Your task to perform on an android device: uninstall "Firefox Browser" Image 0: 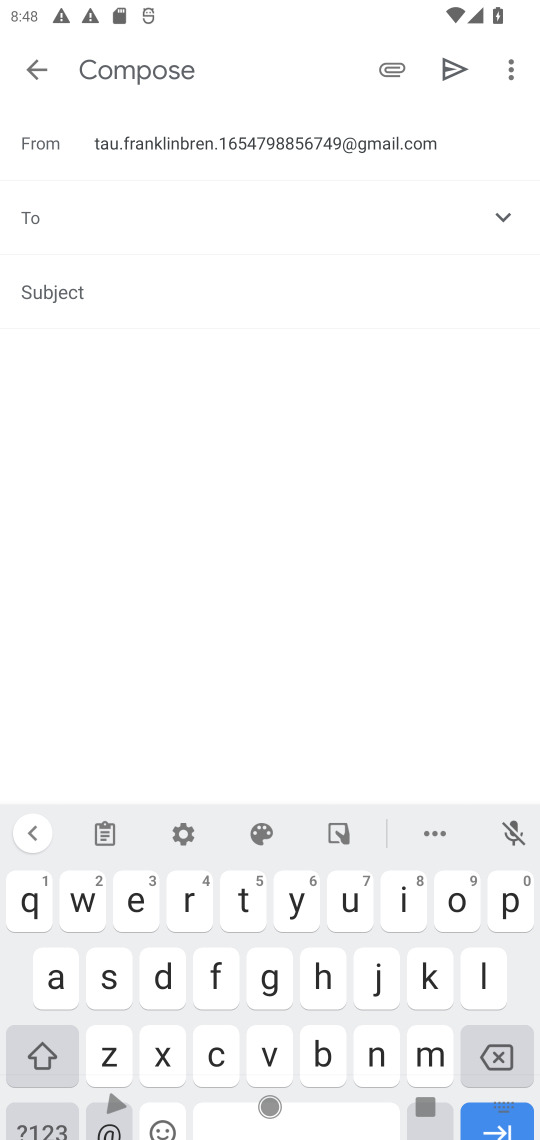
Step 0: press home button
Your task to perform on an android device: uninstall "Firefox Browser" Image 1: 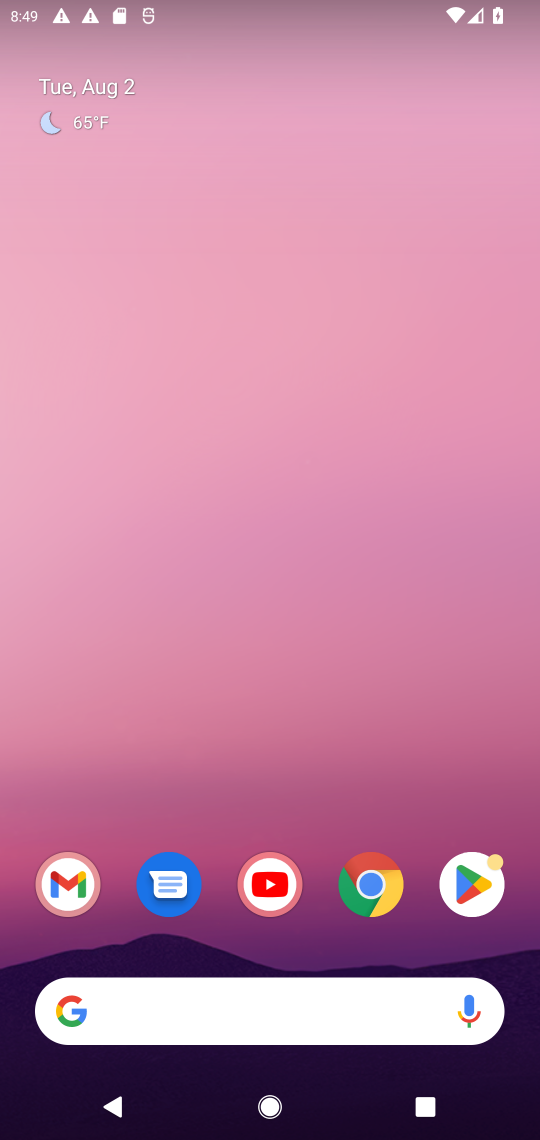
Step 1: click (458, 891)
Your task to perform on an android device: uninstall "Firefox Browser" Image 2: 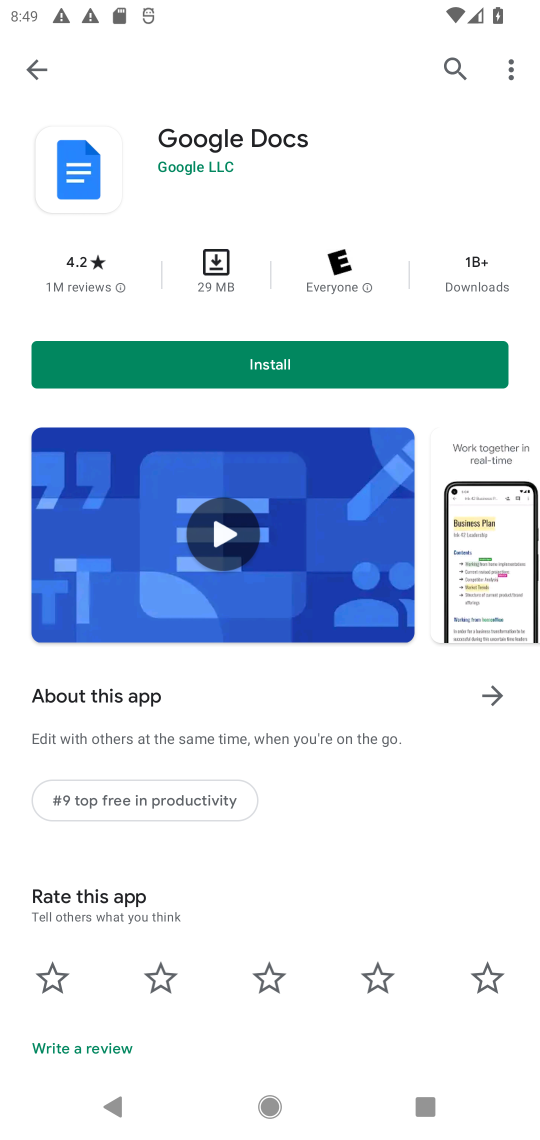
Step 2: click (440, 68)
Your task to perform on an android device: uninstall "Firefox Browser" Image 3: 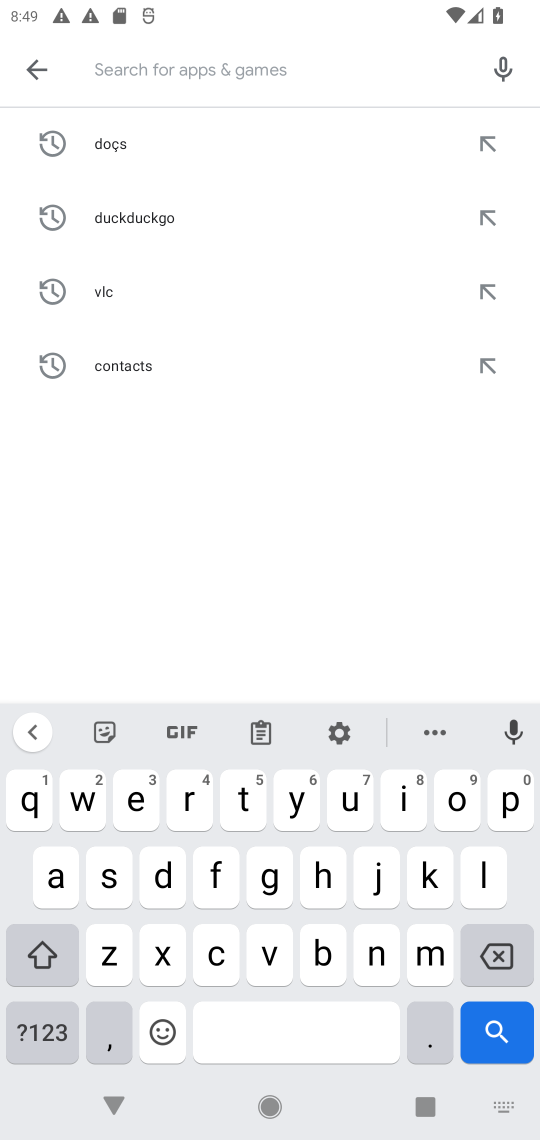
Step 3: click (209, 884)
Your task to perform on an android device: uninstall "Firefox Browser" Image 4: 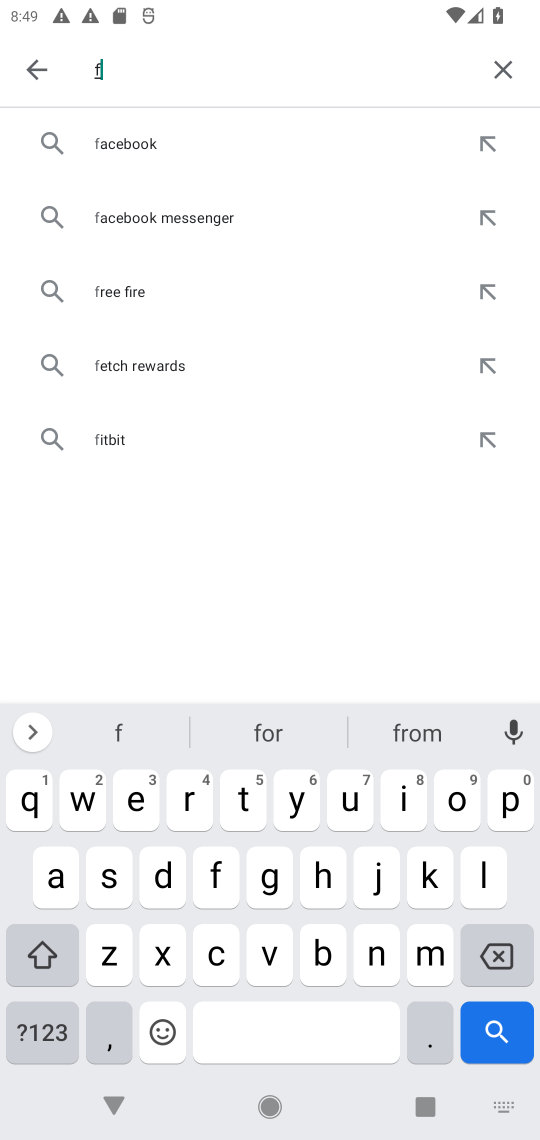
Step 4: click (404, 804)
Your task to perform on an android device: uninstall "Firefox Browser" Image 5: 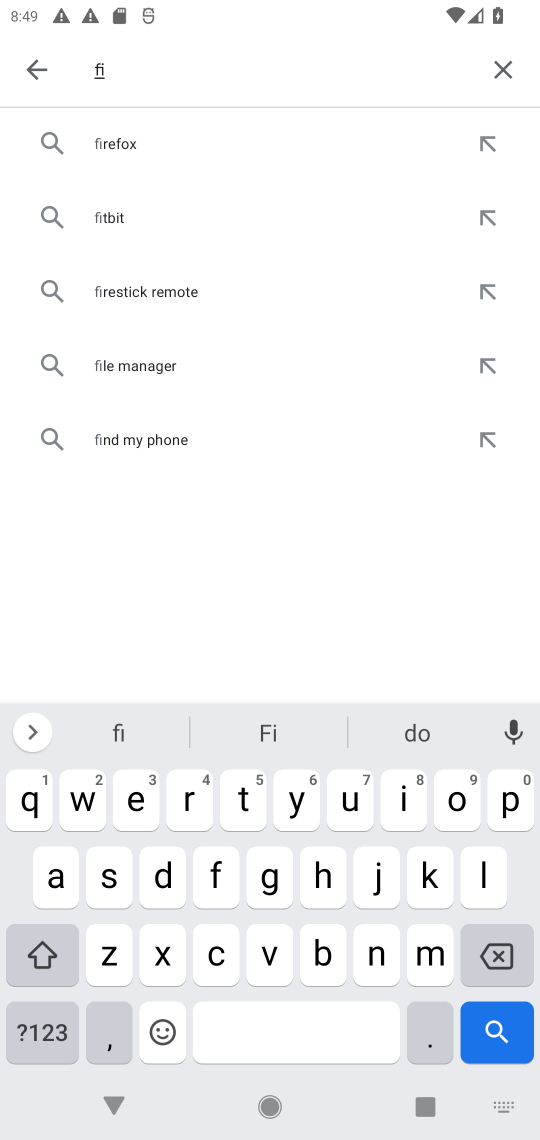
Step 5: click (187, 806)
Your task to perform on an android device: uninstall "Firefox Browser" Image 6: 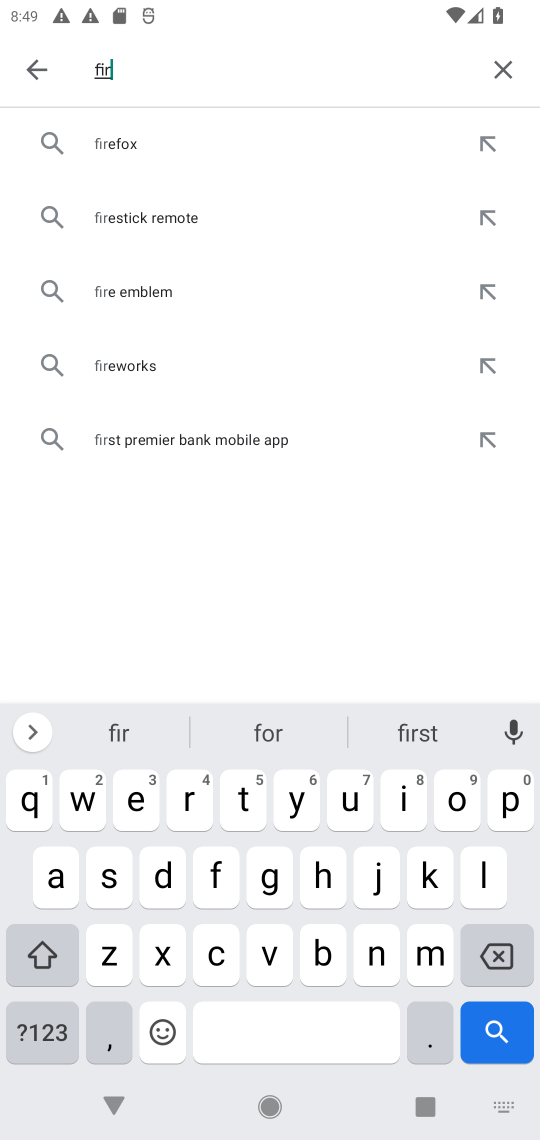
Step 6: click (146, 142)
Your task to perform on an android device: uninstall "Firefox Browser" Image 7: 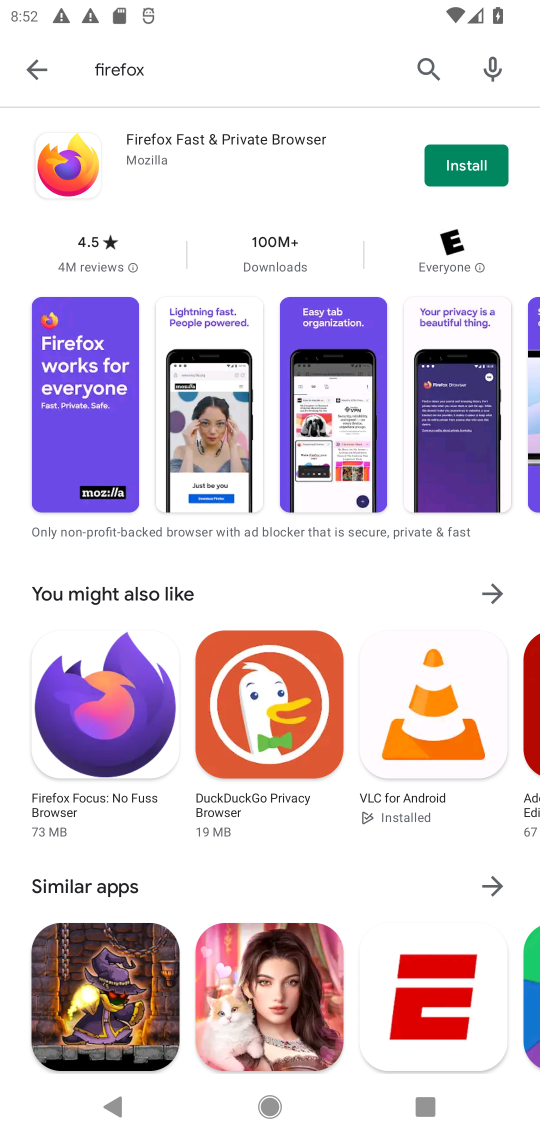
Step 7: task complete